Your task to perform on an android device: Search for "logitech g pro" on walmart, select the first entry, and add it to the cart. Image 0: 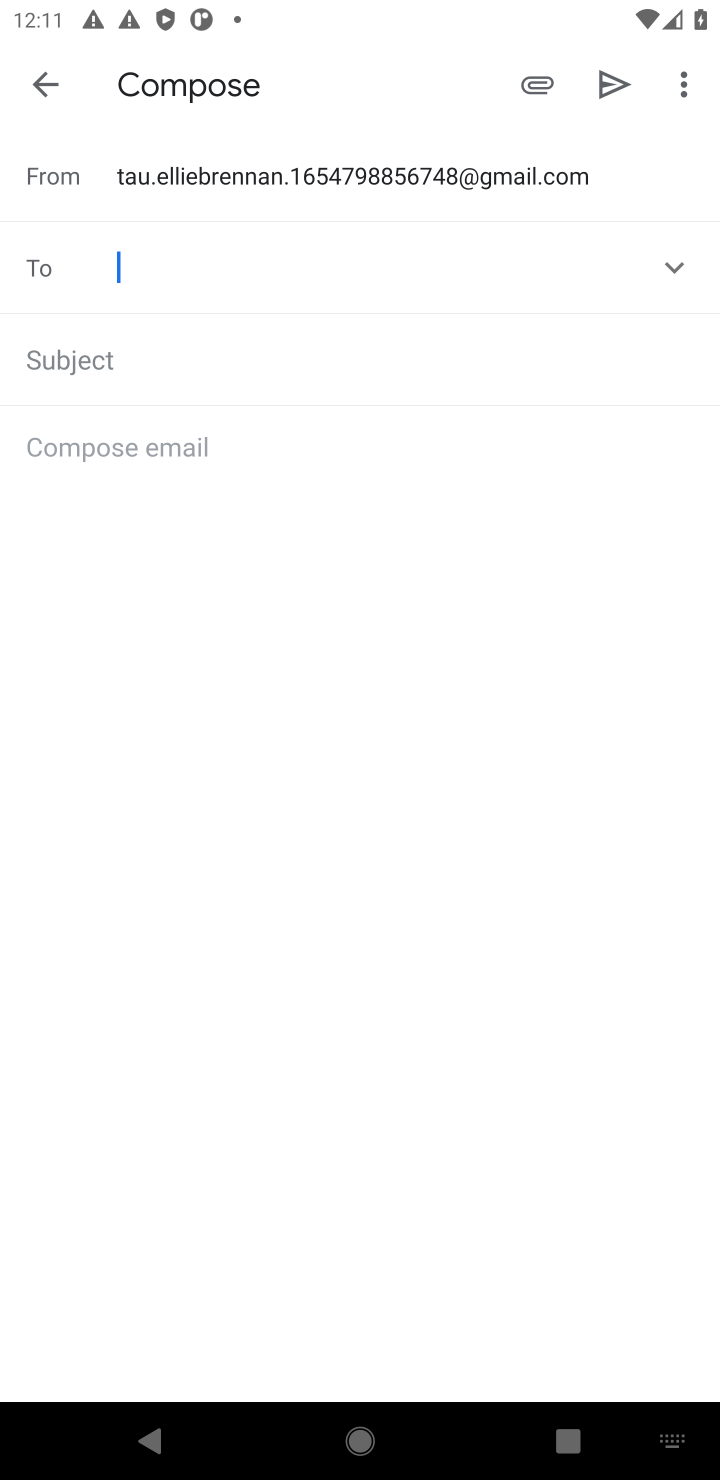
Step 0: press home button
Your task to perform on an android device: Search for "logitech g pro" on walmart, select the first entry, and add it to the cart. Image 1: 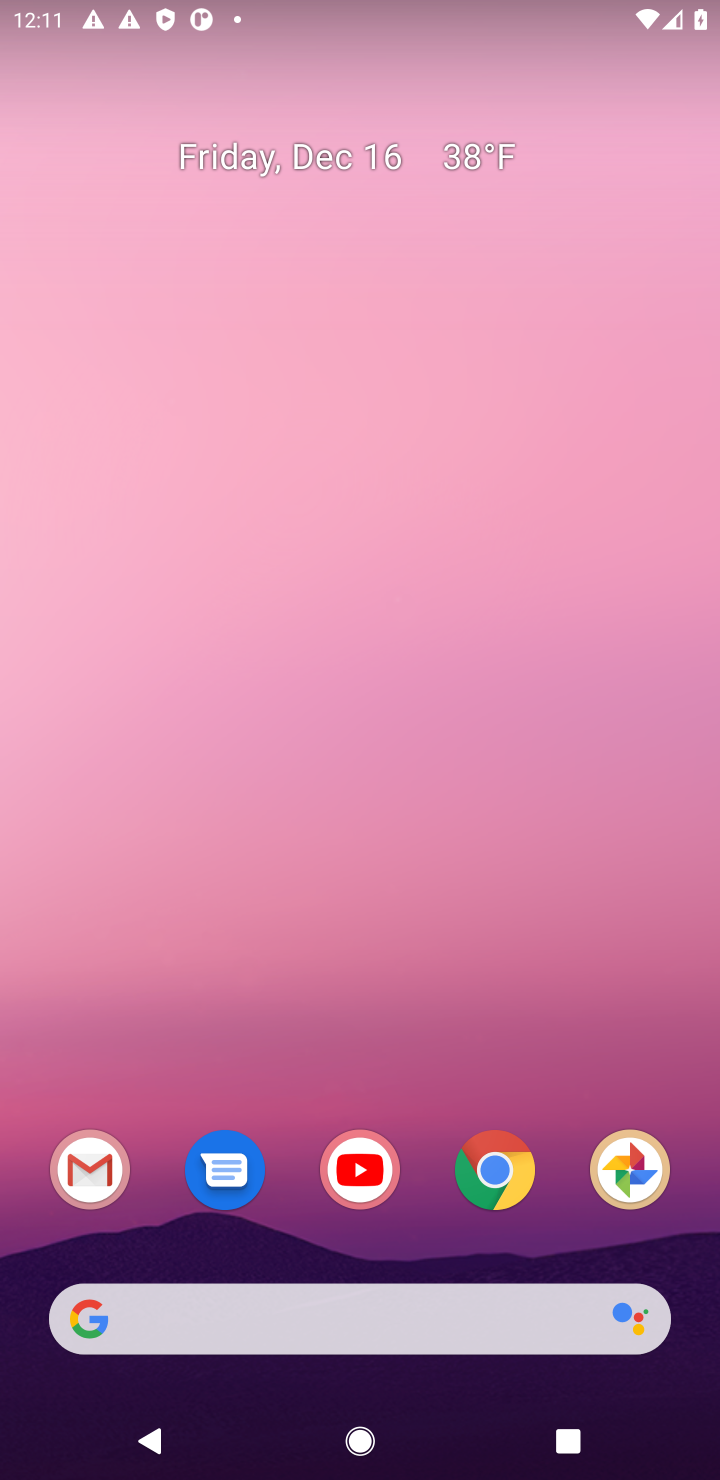
Step 1: click (497, 1173)
Your task to perform on an android device: Search for "logitech g pro" on walmart, select the first entry, and add it to the cart. Image 2: 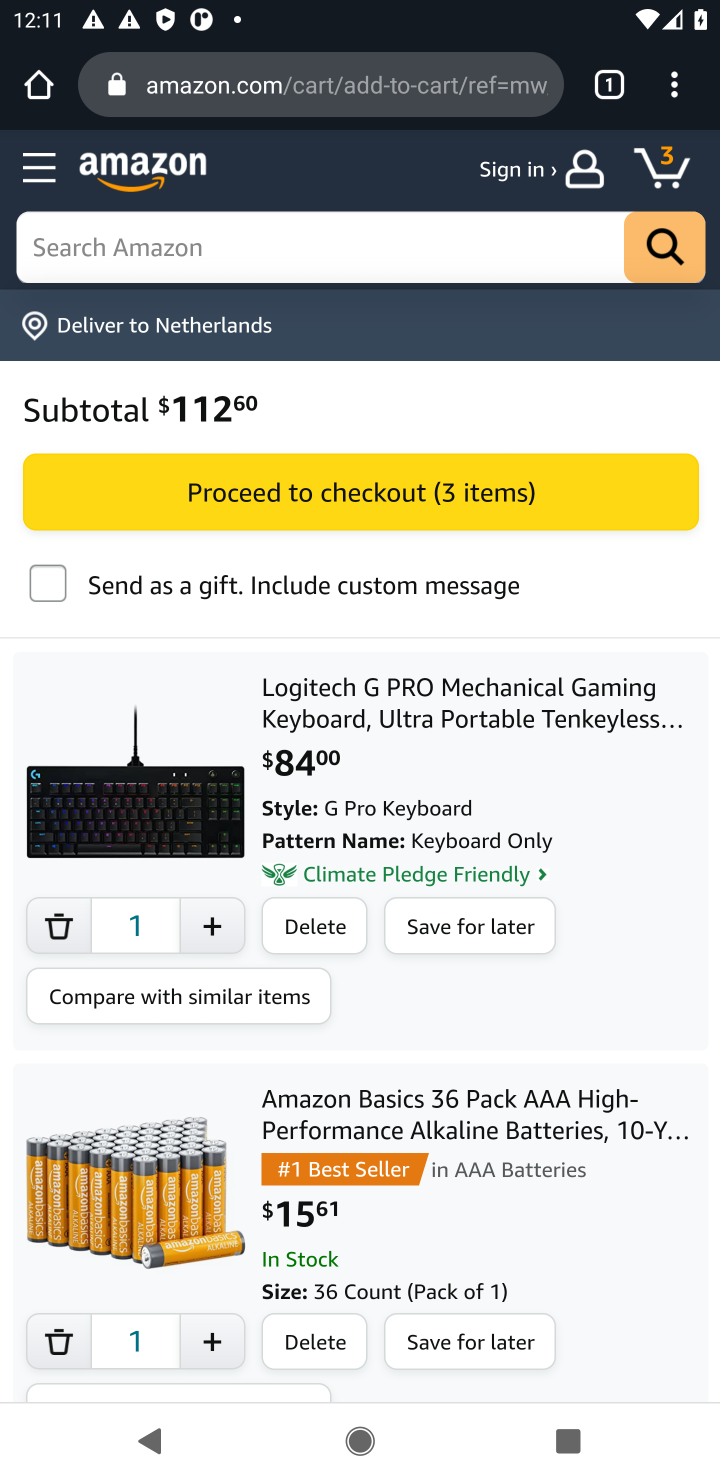
Step 2: click (298, 99)
Your task to perform on an android device: Search for "logitech g pro" on walmart, select the first entry, and add it to the cart. Image 3: 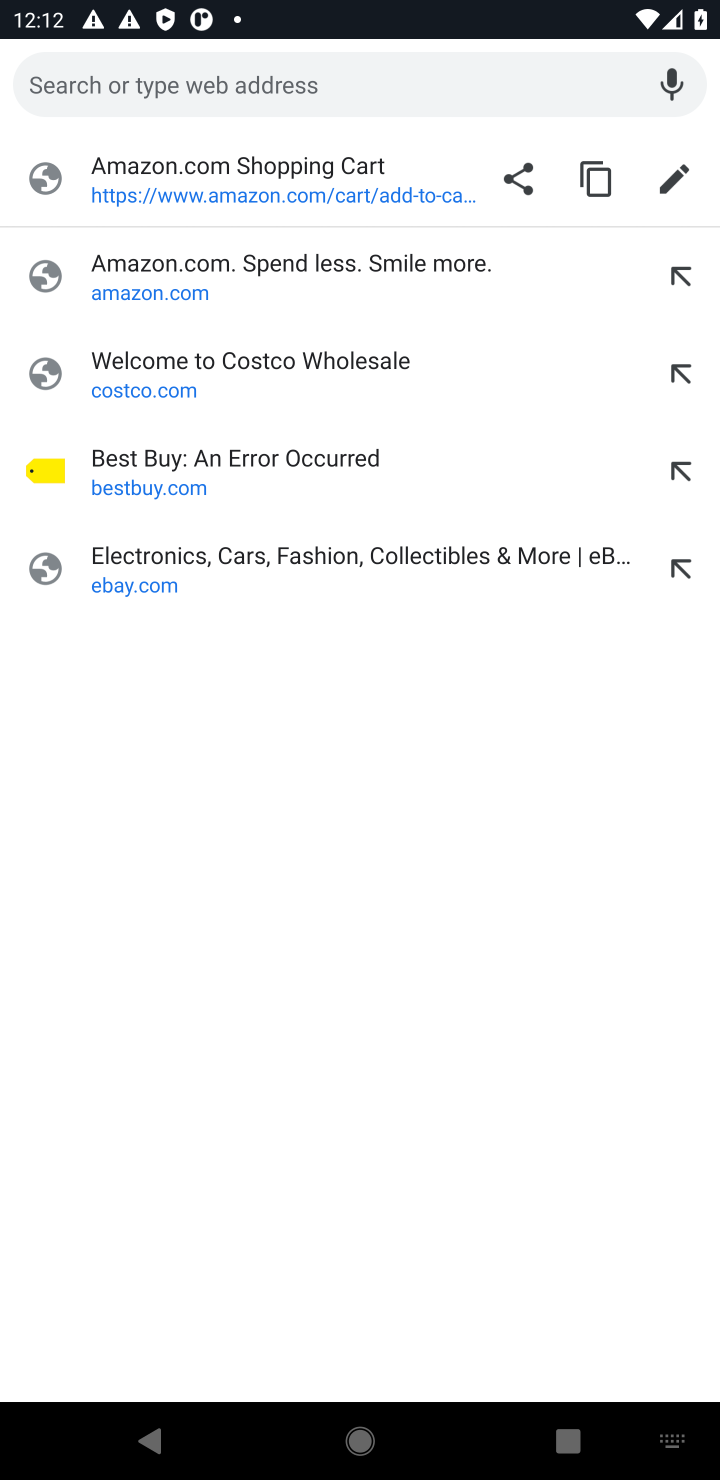
Step 3: type "walmart.com"
Your task to perform on an android device: Search for "logitech g pro" on walmart, select the first entry, and add it to the cart. Image 4: 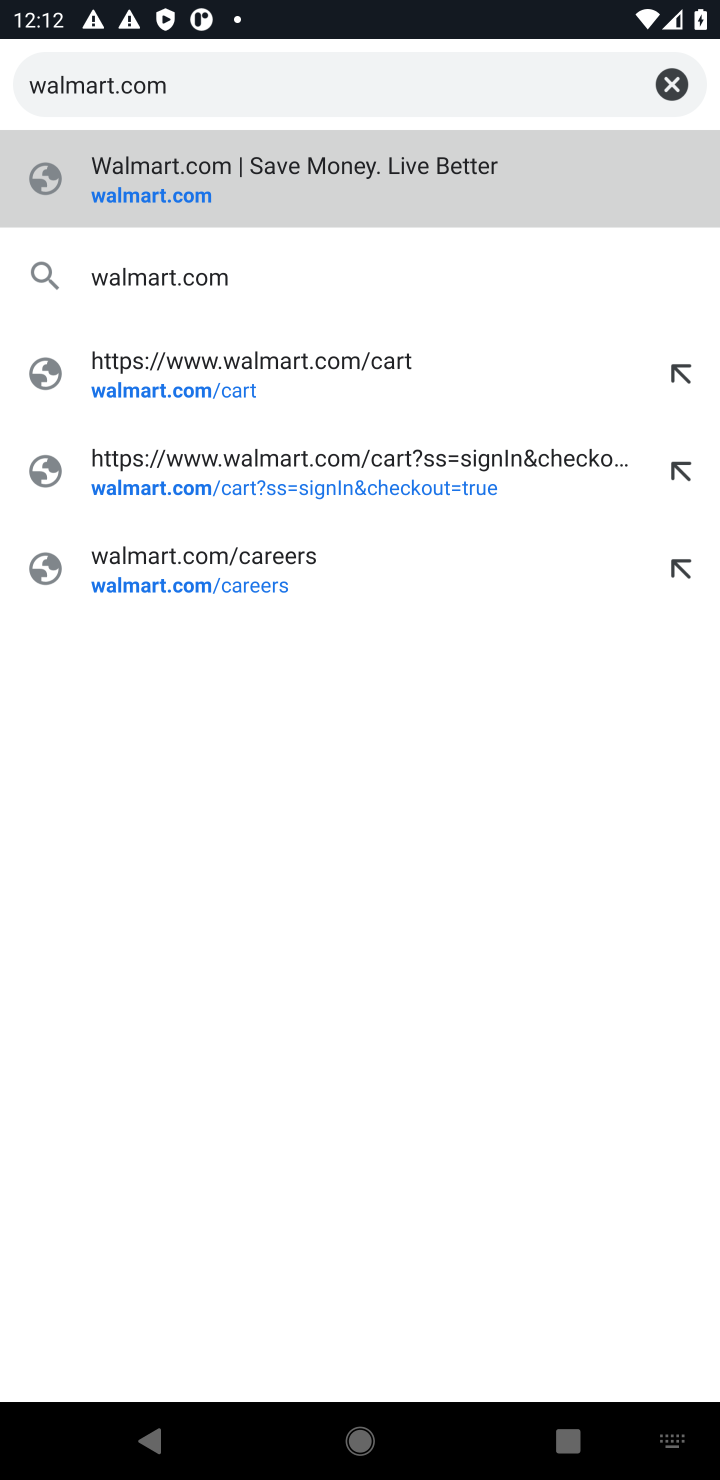
Step 4: click (162, 192)
Your task to perform on an android device: Search for "logitech g pro" on walmart, select the first entry, and add it to the cart. Image 5: 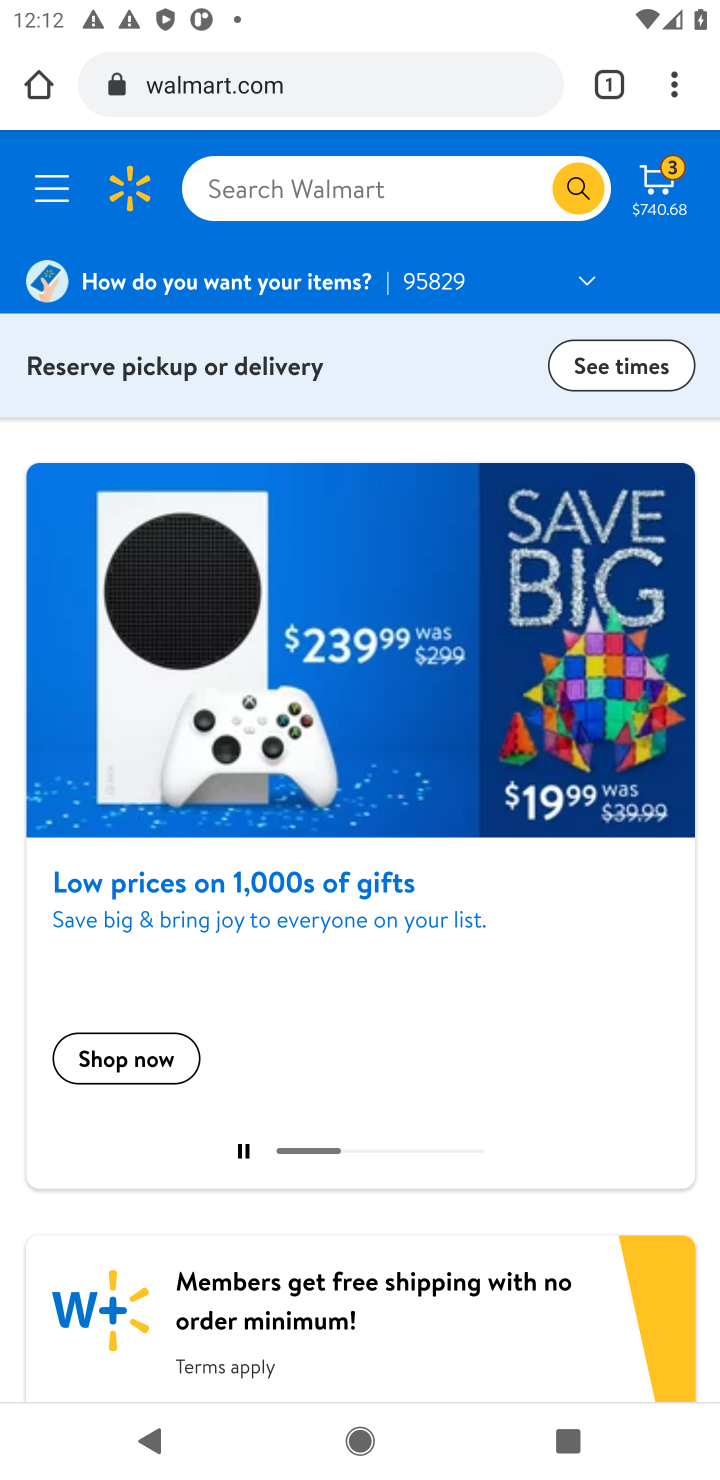
Step 5: click (282, 213)
Your task to perform on an android device: Search for "logitech g pro" on walmart, select the first entry, and add it to the cart. Image 6: 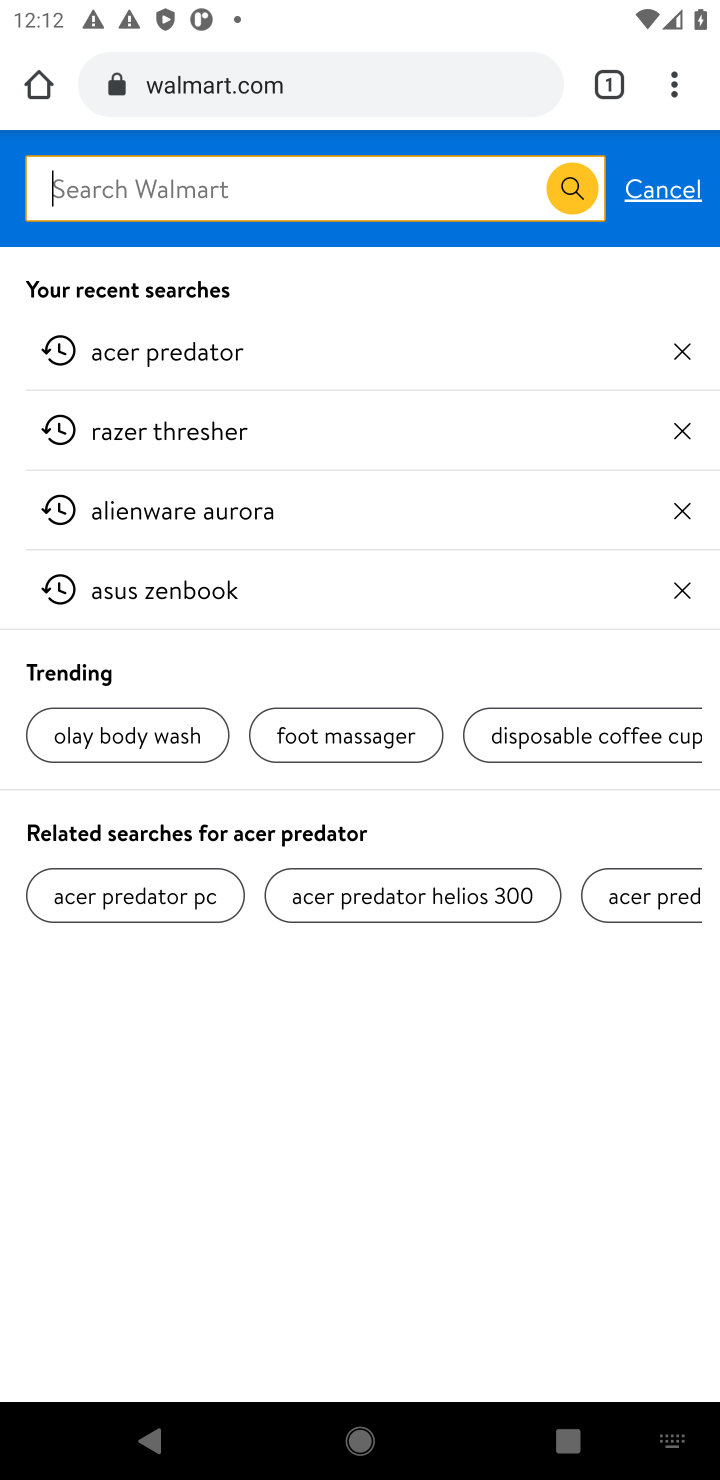
Step 6: type "logitech g pro"
Your task to perform on an android device: Search for "logitech g pro" on walmart, select the first entry, and add it to the cart. Image 7: 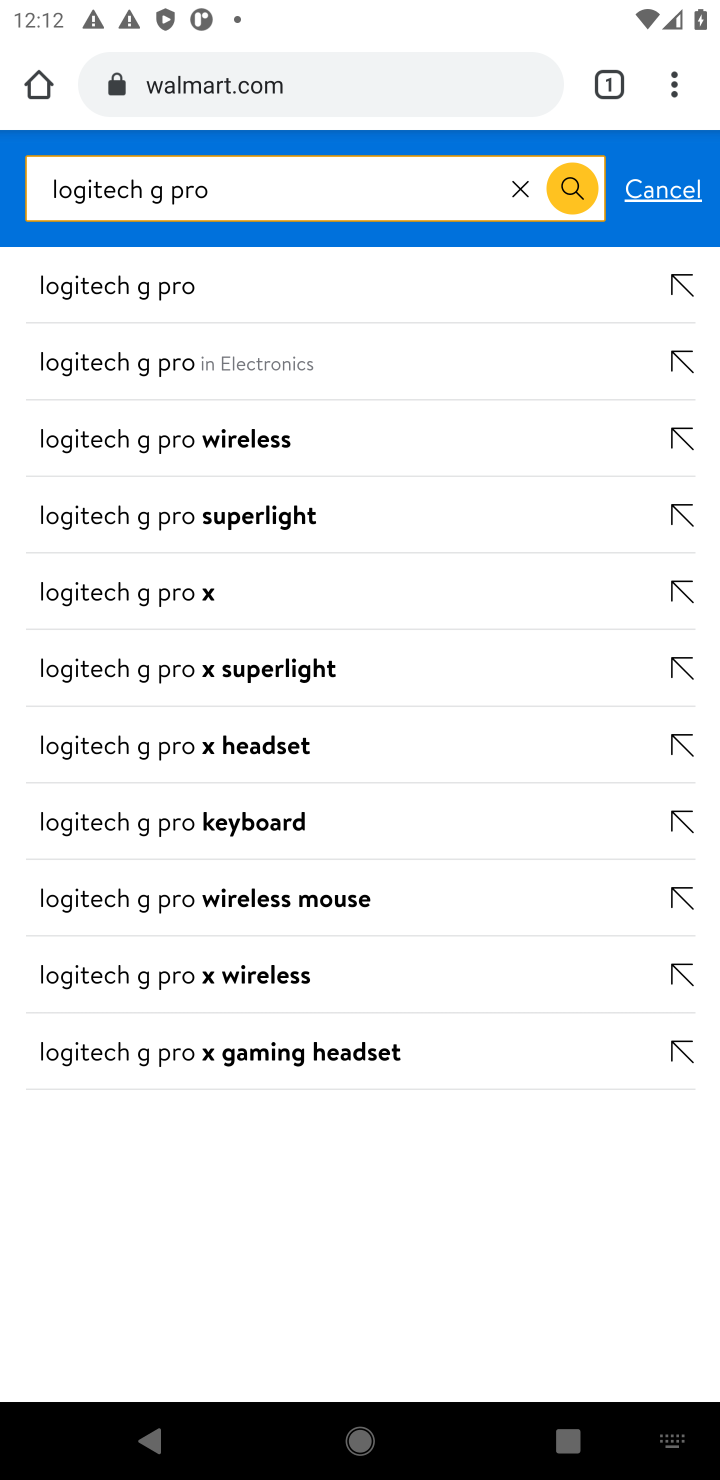
Step 7: click (129, 285)
Your task to perform on an android device: Search for "logitech g pro" on walmart, select the first entry, and add it to the cart. Image 8: 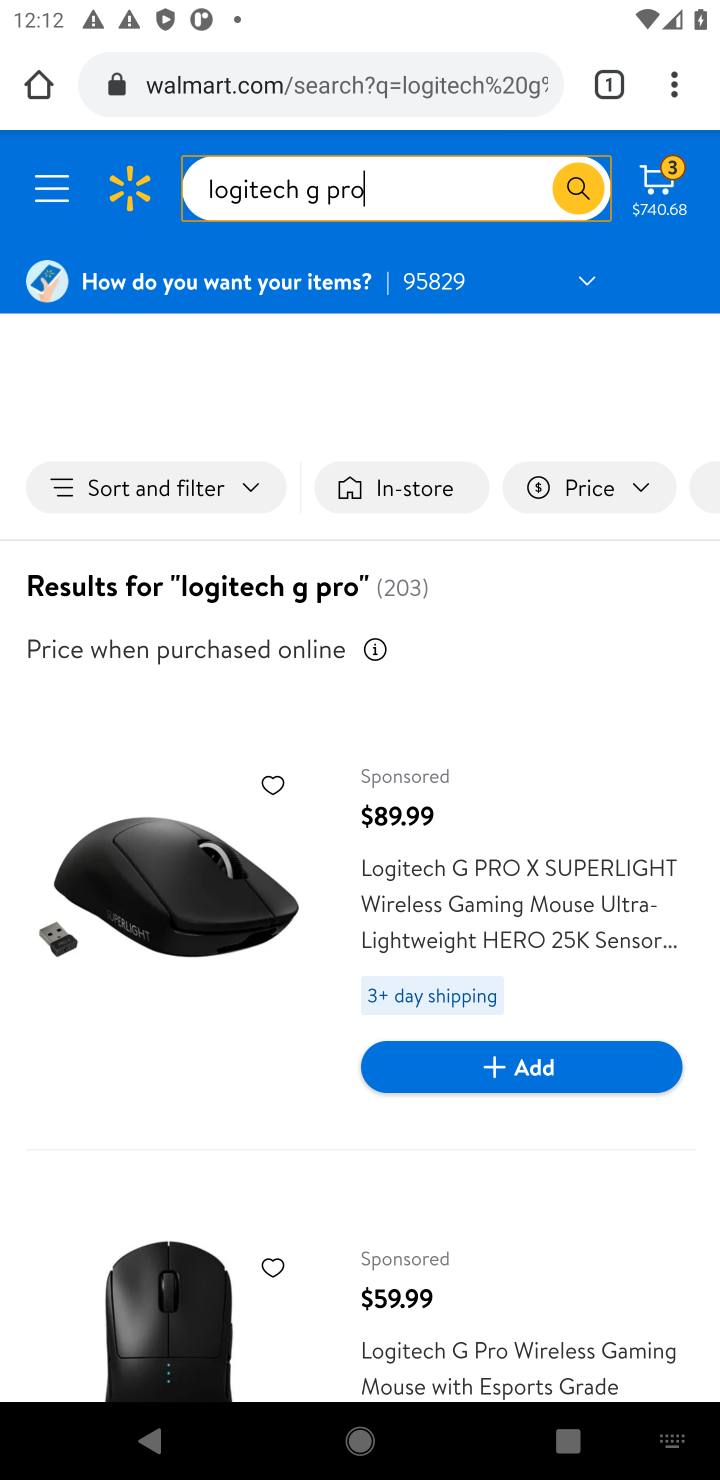
Step 8: click (488, 1069)
Your task to perform on an android device: Search for "logitech g pro" on walmart, select the first entry, and add it to the cart. Image 9: 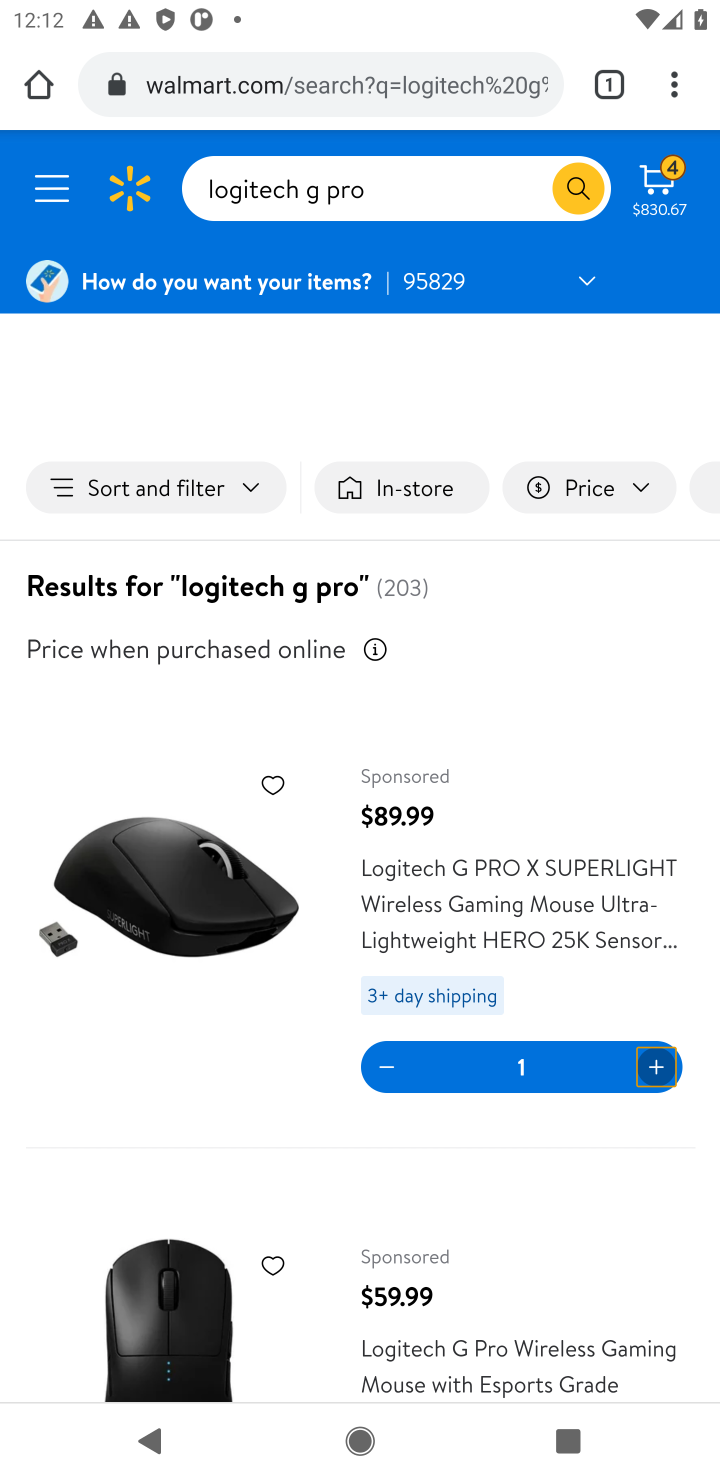
Step 9: task complete